Your task to perform on an android device: check data usage Image 0: 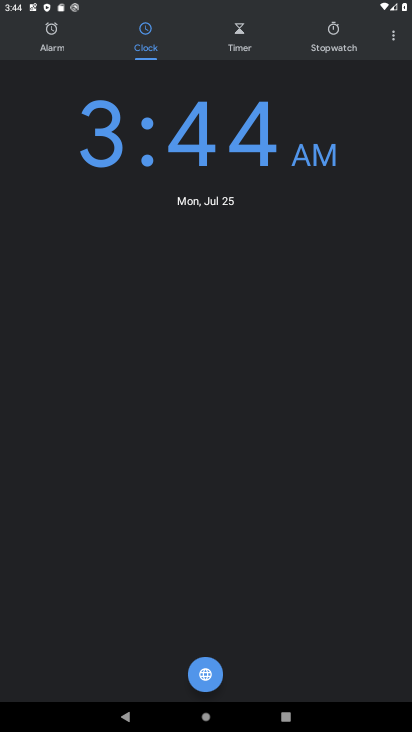
Step 0: press home button
Your task to perform on an android device: check data usage Image 1: 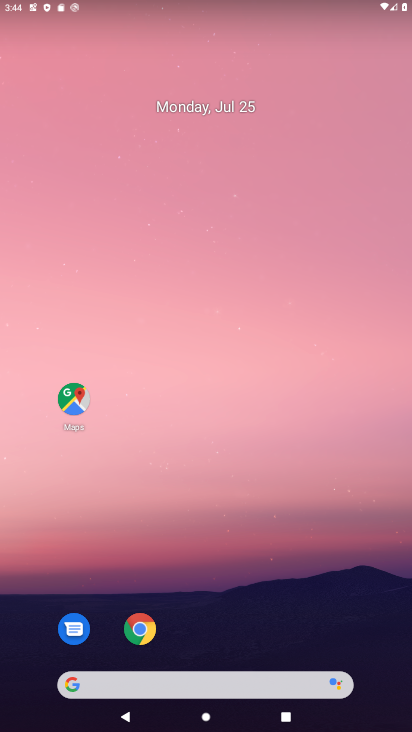
Step 1: drag from (265, 629) to (379, 4)
Your task to perform on an android device: check data usage Image 2: 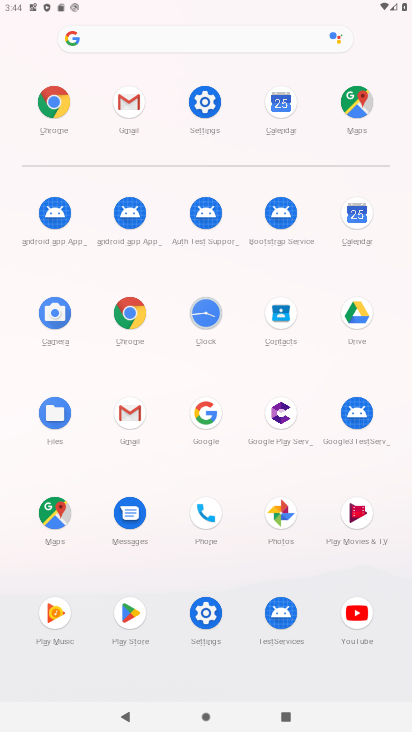
Step 2: click (215, 104)
Your task to perform on an android device: check data usage Image 3: 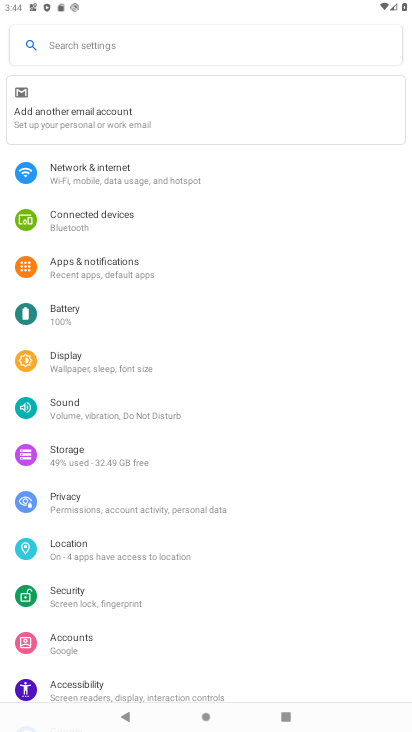
Step 3: click (88, 167)
Your task to perform on an android device: check data usage Image 4: 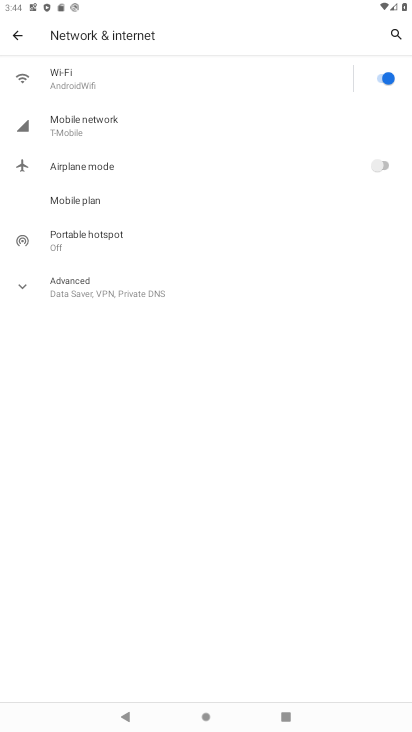
Step 4: click (93, 197)
Your task to perform on an android device: check data usage Image 5: 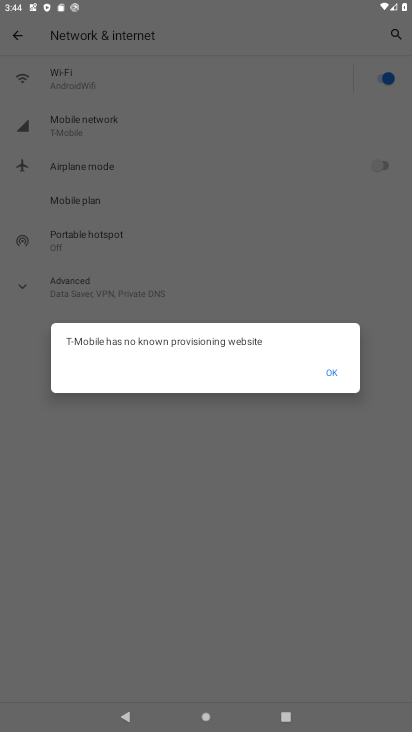
Step 5: task complete